Your task to perform on an android device: Open the Play Movies app and select the watchlist tab. Image 0: 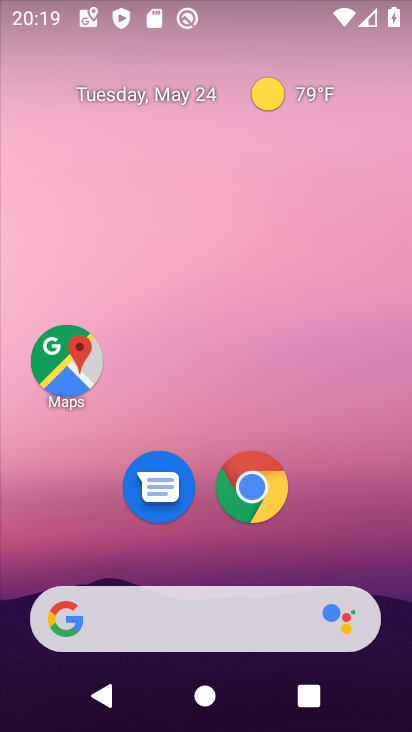
Step 0: drag from (33, 525) to (167, 337)
Your task to perform on an android device: Open the Play Movies app and select the watchlist tab. Image 1: 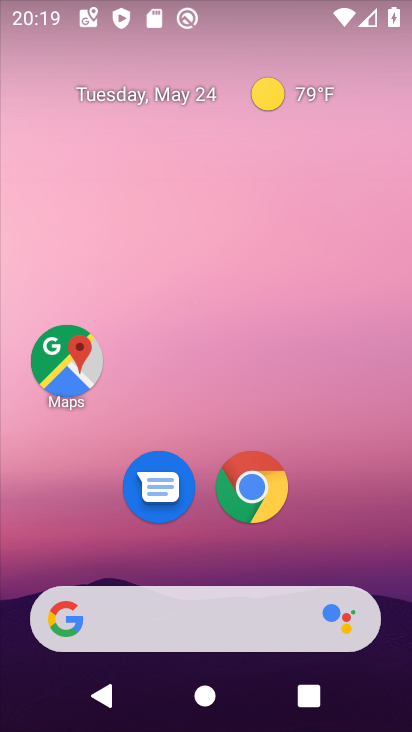
Step 1: drag from (16, 410) to (217, 220)
Your task to perform on an android device: Open the Play Movies app and select the watchlist tab. Image 2: 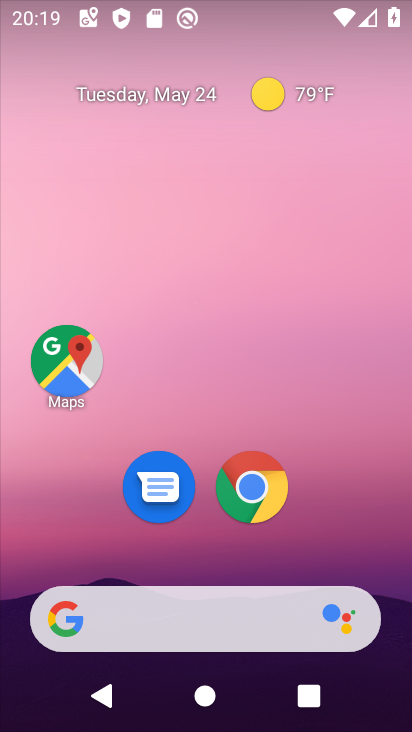
Step 2: drag from (6, 686) to (343, 134)
Your task to perform on an android device: Open the Play Movies app and select the watchlist tab. Image 3: 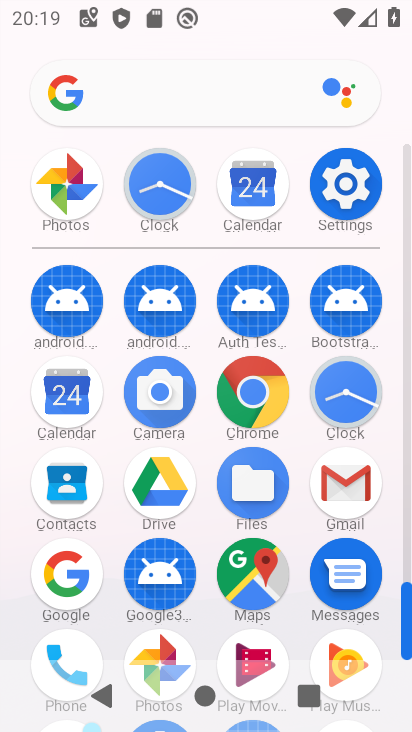
Step 3: click (245, 641)
Your task to perform on an android device: Open the Play Movies app and select the watchlist tab. Image 4: 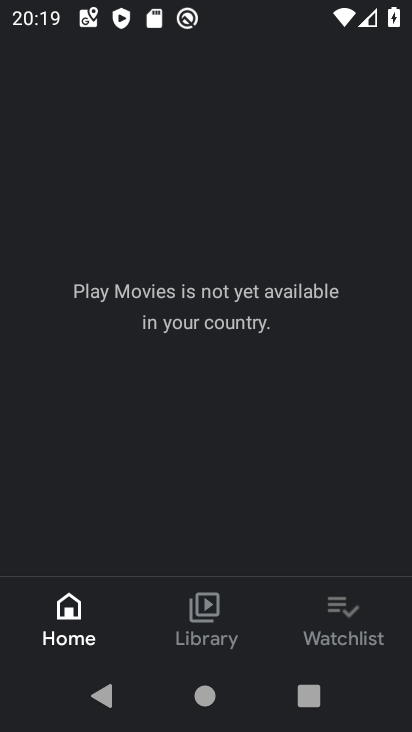
Step 4: click (334, 617)
Your task to perform on an android device: Open the Play Movies app and select the watchlist tab. Image 5: 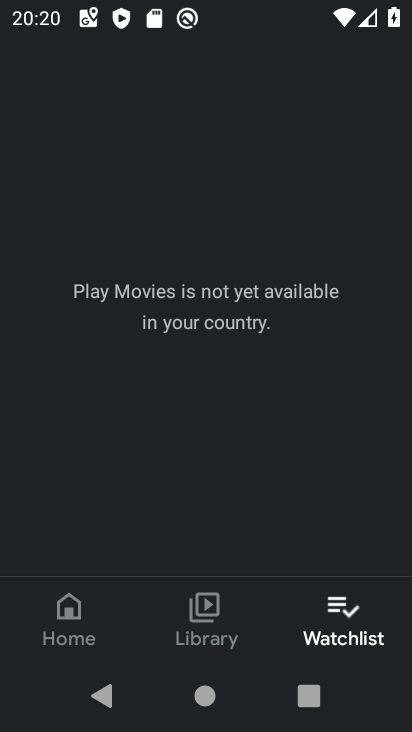
Step 5: task complete